Your task to perform on an android device: Go to Maps Image 0: 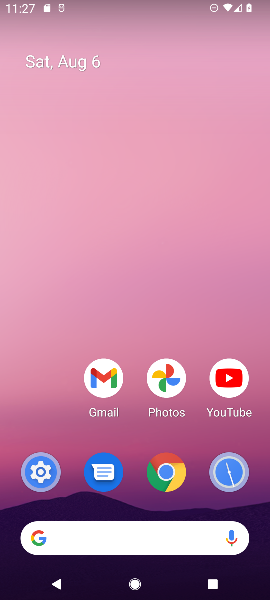
Step 0: drag from (151, 517) to (122, 296)
Your task to perform on an android device: Go to Maps Image 1: 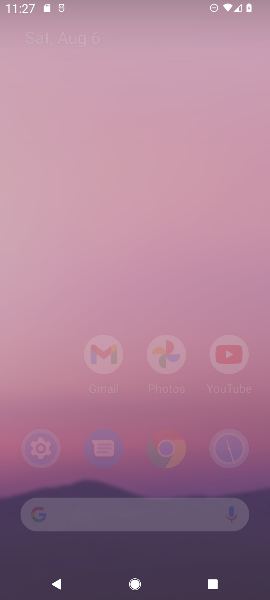
Step 1: drag from (153, 547) to (119, 305)
Your task to perform on an android device: Go to Maps Image 2: 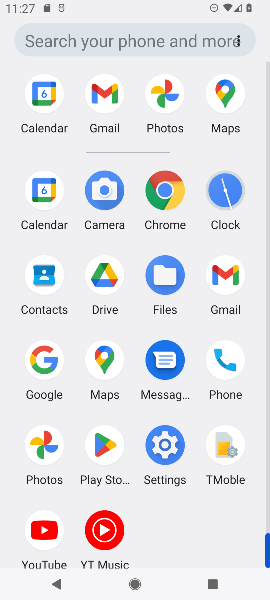
Step 2: drag from (118, 490) to (118, 284)
Your task to perform on an android device: Go to Maps Image 3: 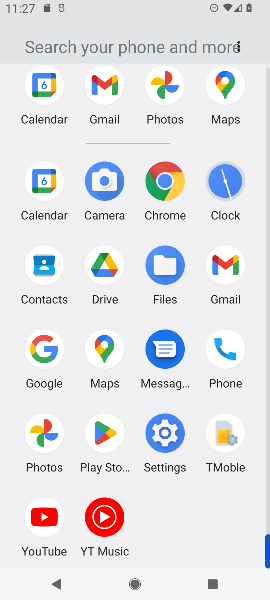
Step 3: click (97, 361)
Your task to perform on an android device: Go to Maps Image 4: 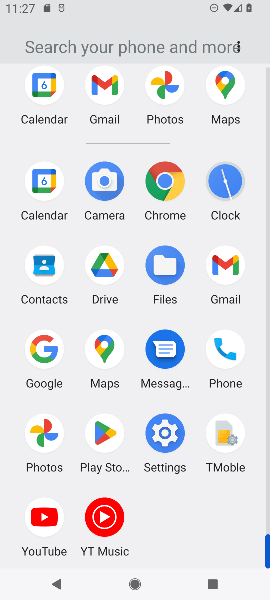
Step 4: click (99, 358)
Your task to perform on an android device: Go to Maps Image 5: 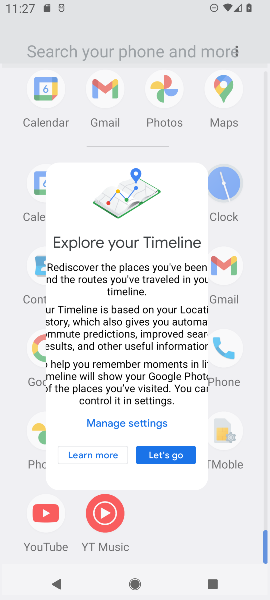
Step 5: click (100, 359)
Your task to perform on an android device: Go to Maps Image 6: 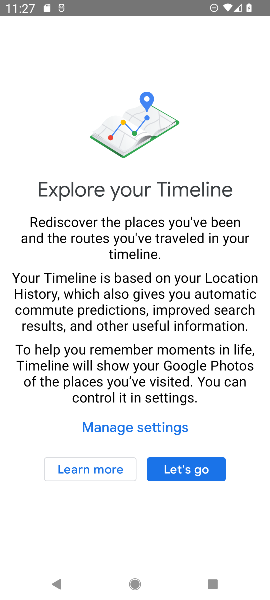
Step 6: click (200, 471)
Your task to perform on an android device: Go to Maps Image 7: 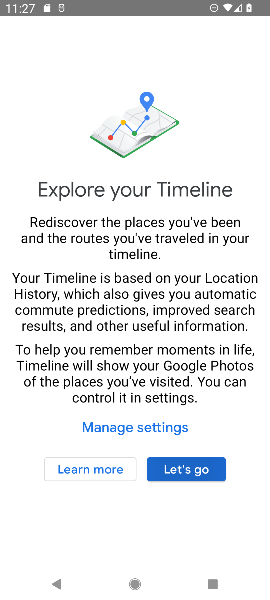
Step 7: task complete